Your task to perform on an android device: Open Google Chrome and open the bookmarks view Image 0: 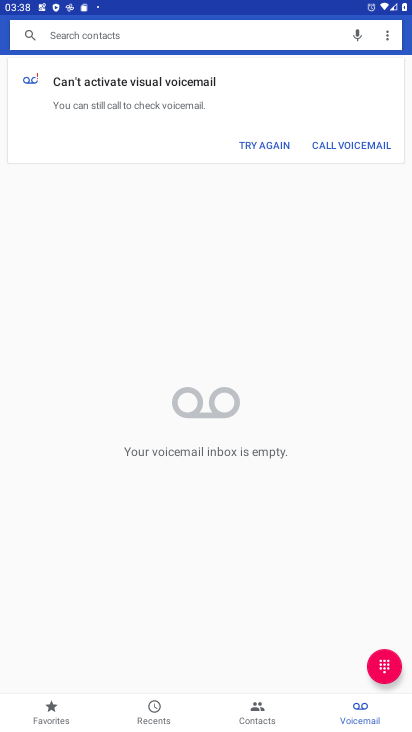
Step 0: press home button
Your task to perform on an android device: Open Google Chrome and open the bookmarks view Image 1: 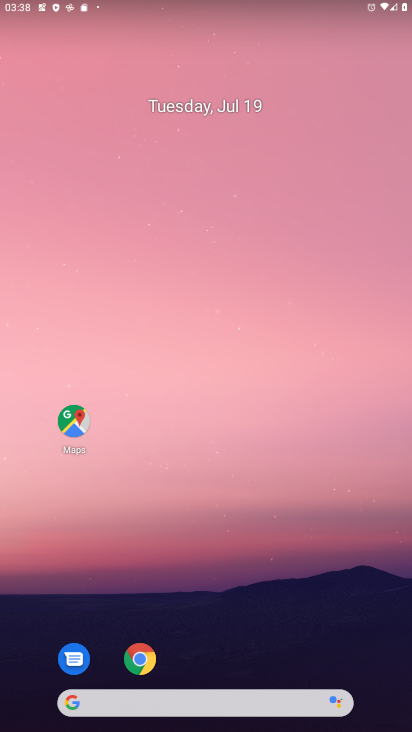
Step 1: click (144, 678)
Your task to perform on an android device: Open Google Chrome and open the bookmarks view Image 2: 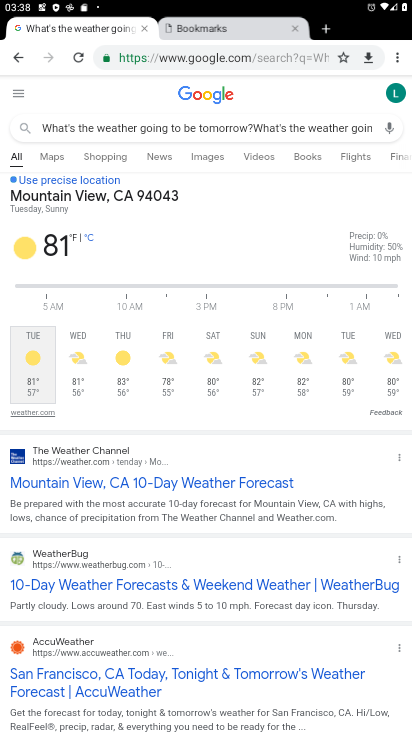
Step 2: drag from (403, 54) to (259, 395)
Your task to perform on an android device: Open Google Chrome and open the bookmarks view Image 3: 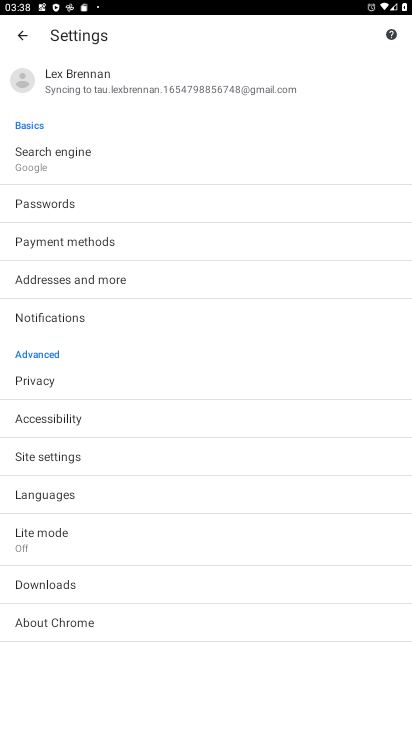
Step 3: click (20, 41)
Your task to perform on an android device: Open Google Chrome and open the bookmarks view Image 4: 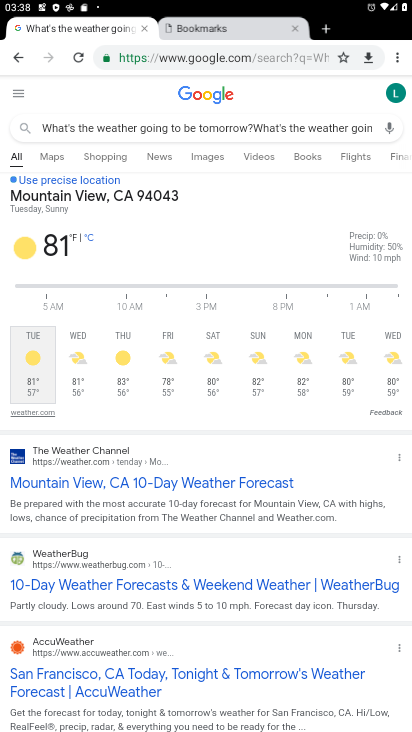
Step 4: task complete